Your task to perform on an android device: Check the news Image 0: 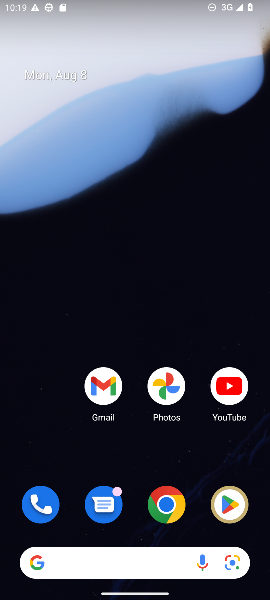
Step 0: drag from (148, 465) to (178, 133)
Your task to perform on an android device: Check the news Image 1: 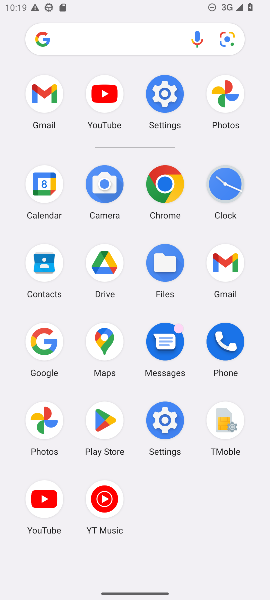
Step 1: click (42, 38)
Your task to perform on an android device: Check the news Image 2: 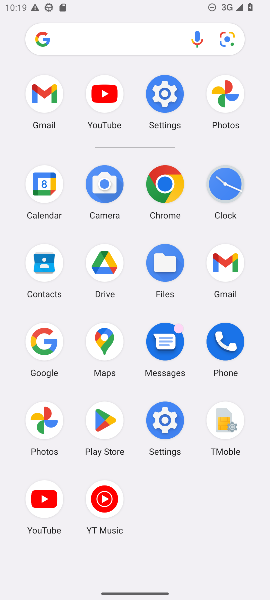
Step 2: click (42, 38)
Your task to perform on an android device: Check the news Image 3: 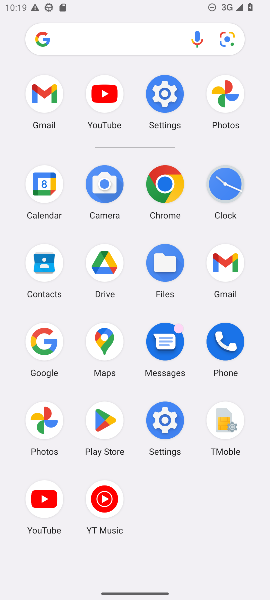
Step 3: click (94, 32)
Your task to perform on an android device: Check the news Image 4: 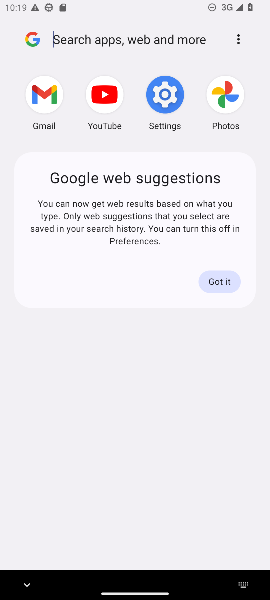
Step 4: type "google"
Your task to perform on an android device: Check the news Image 5: 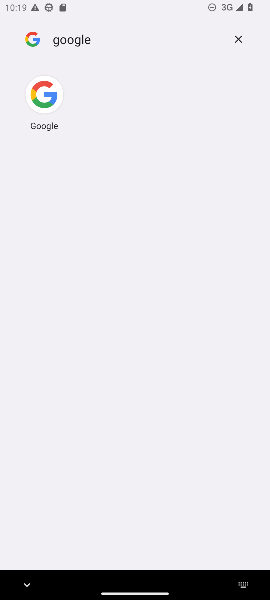
Step 5: click (48, 108)
Your task to perform on an android device: Check the news Image 6: 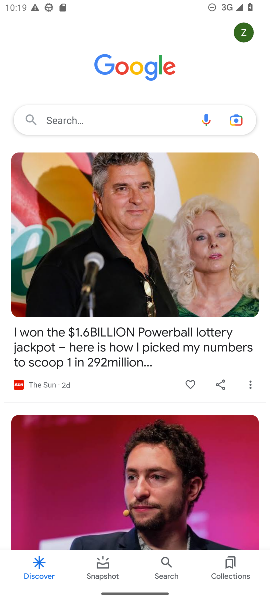
Step 6: click (112, 117)
Your task to perform on an android device: Check the news Image 7: 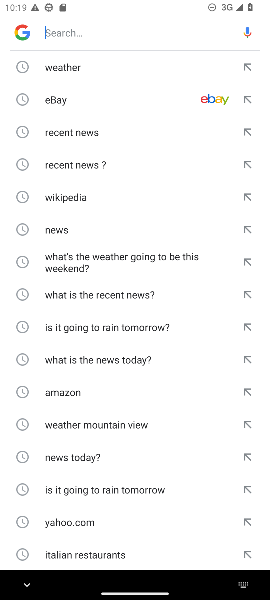
Step 7: type "news"
Your task to perform on an android device: Check the news Image 8: 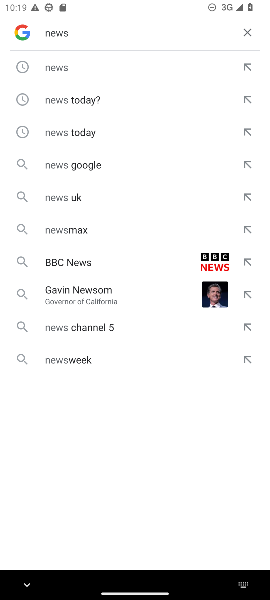
Step 8: click (62, 71)
Your task to perform on an android device: Check the news Image 9: 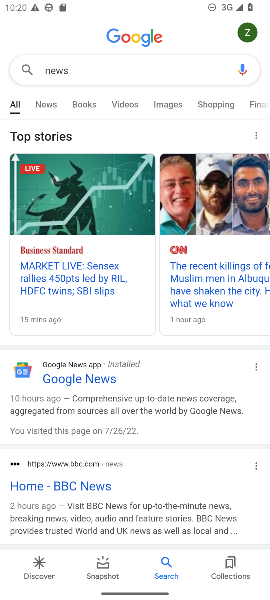
Step 9: task complete